Your task to perform on an android device: Clear the shopping cart on ebay. Add razer thresher to the cart on ebay, then select checkout. Image 0: 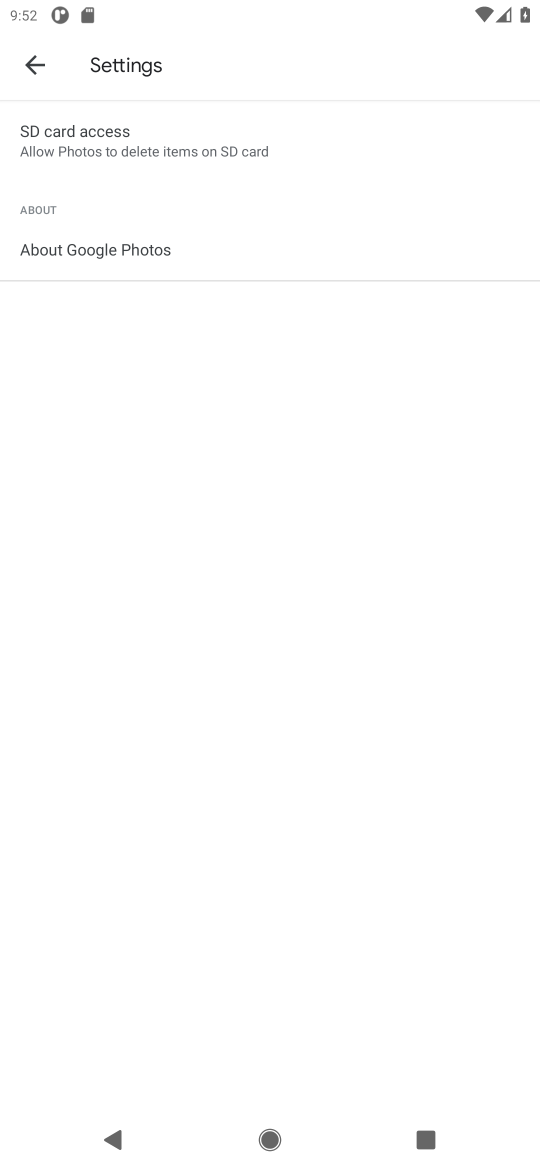
Step 0: press home button
Your task to perform on an android device: Clear the shopping cart on ebay. Add razer thresher to the cart on ebay, then select checkout. Image 1: 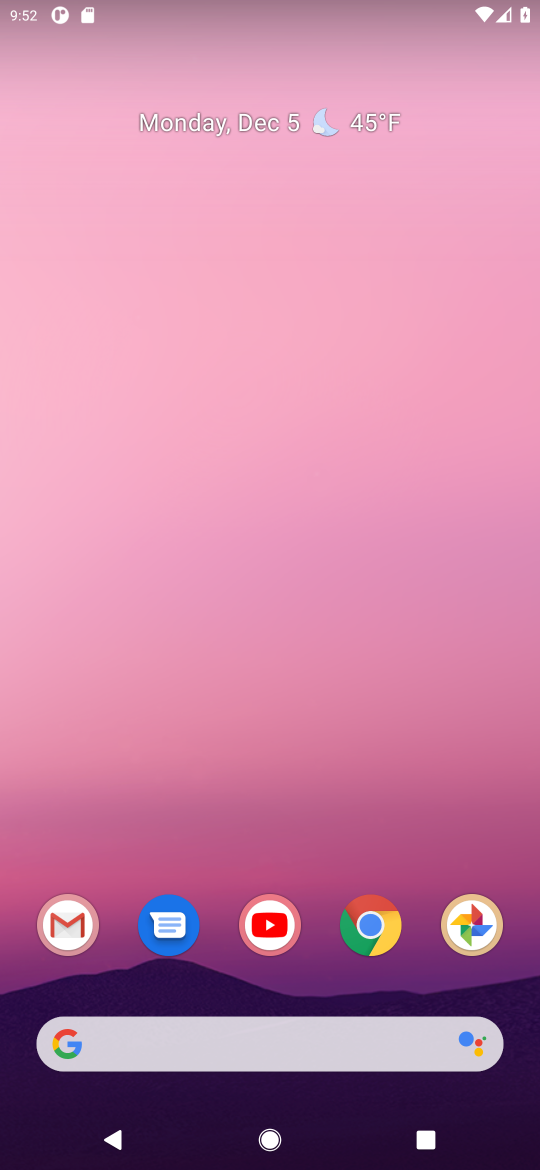
Step 1: click (375, 928)
Your task to perform on an android device: Clear the shopping cart on ebay. Add razer thresher to the cart on ebay, then select checkout. Image 2: 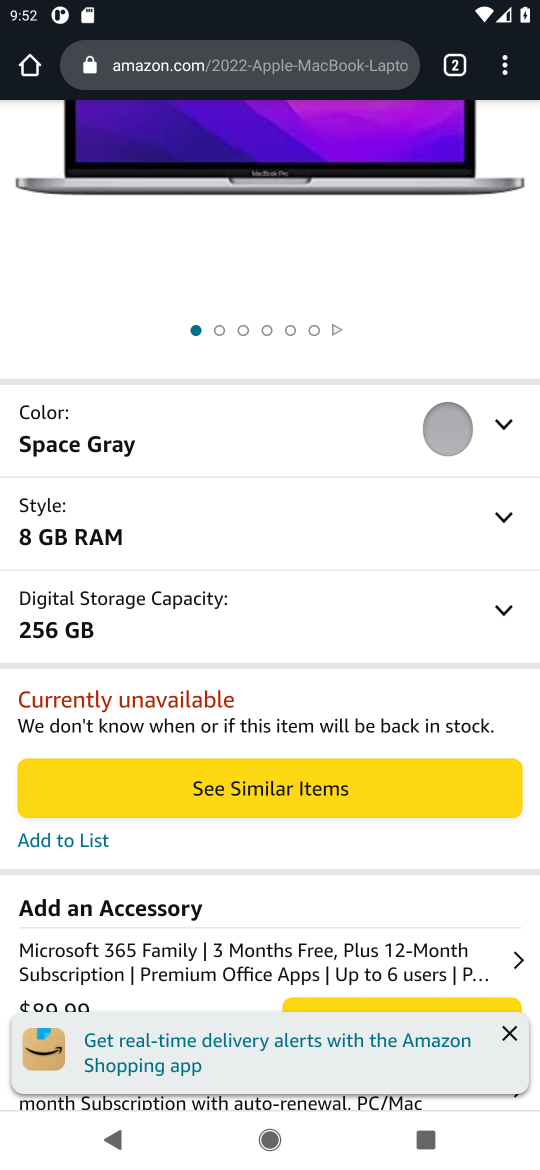
Step 2: click (180, 68)
Your task to perform on an android device: Clear the shopping cart on ebay. Add razer thresher to the cart on ebay, then select checkout. Image 3: 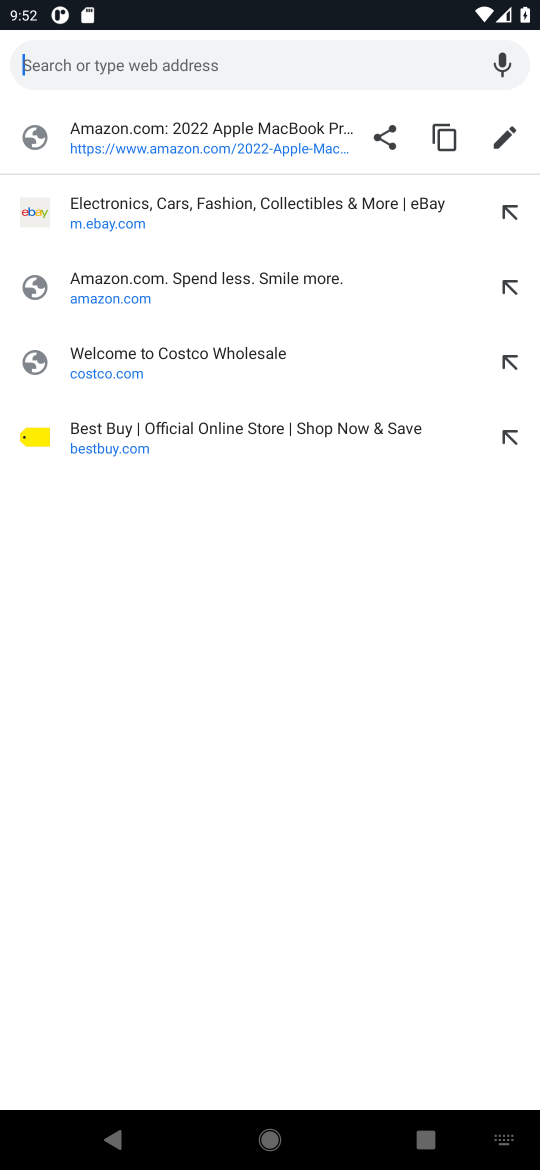
Step 3: click (112, 206)
Your task to perform on an android device: Clear the shopping cart on ebay. Add razer thresher to the cart on ebay, then select checkout. Image 4: 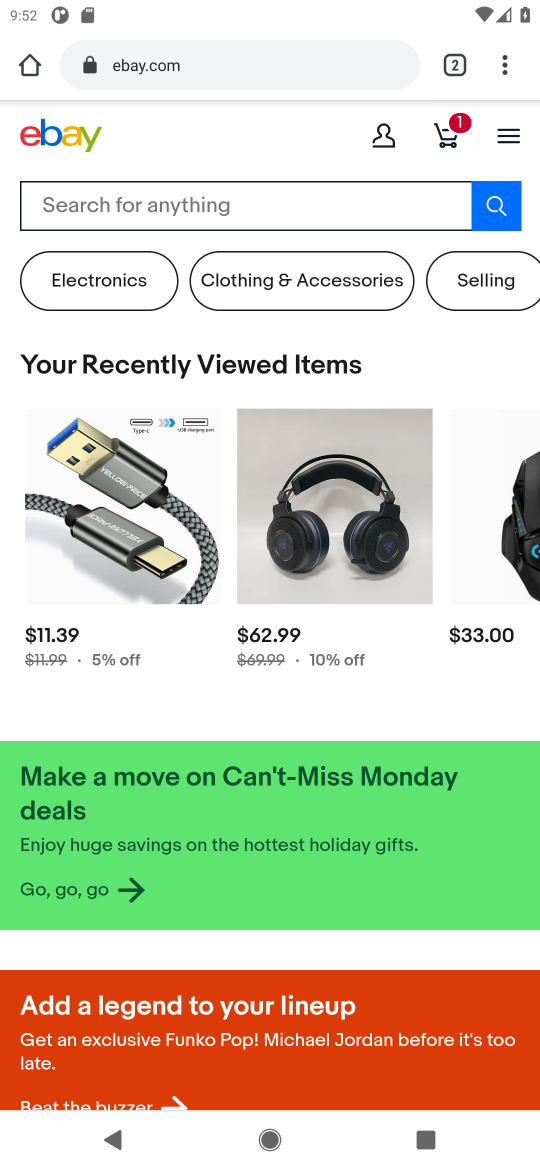
Step 4: click (447, 139)
Your task to perform on an android device: Clear the shopping cart on ebay. Add razer thresher to the cart on ebay, then select checkout. Image 5: 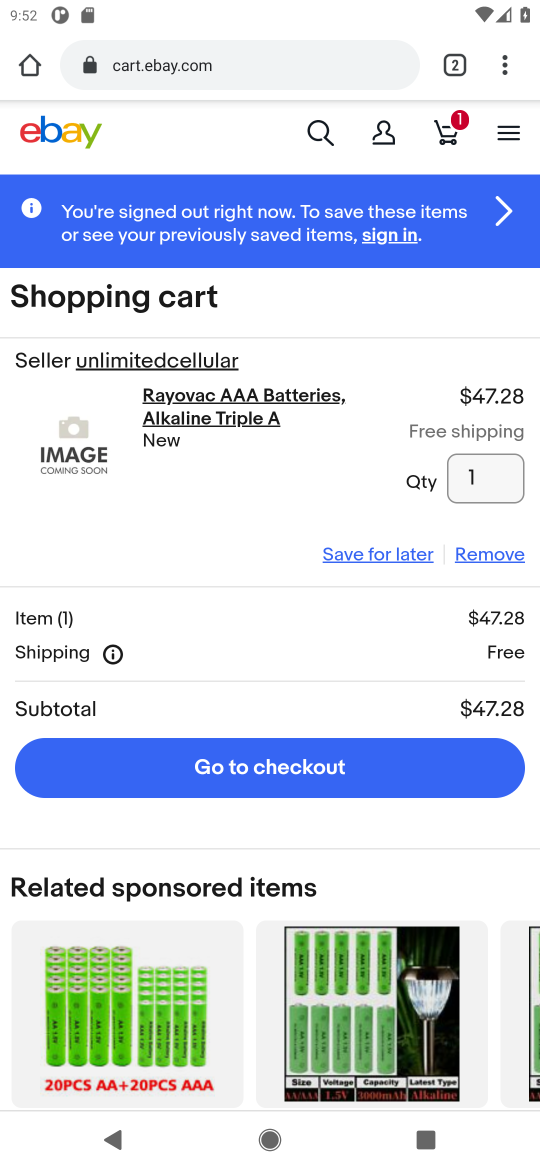
Step 5: click (472, 557)
Your task to perform on an android device: Clear the shopping cart on ebay. Add razer thresher to the cart on ebay, then select checkout. Image 6: 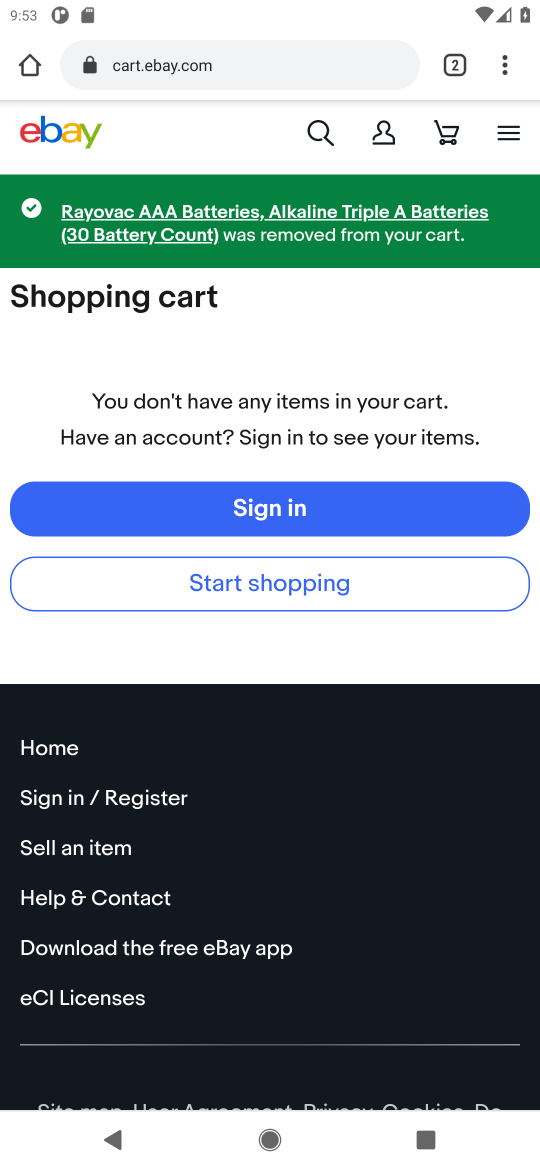
Step 6: click (330, 143)
Your task to perform on an android device: Clear the shopping cart on ebay. Add razer thresher to the cart on ebay, then select checkout. Image 7: 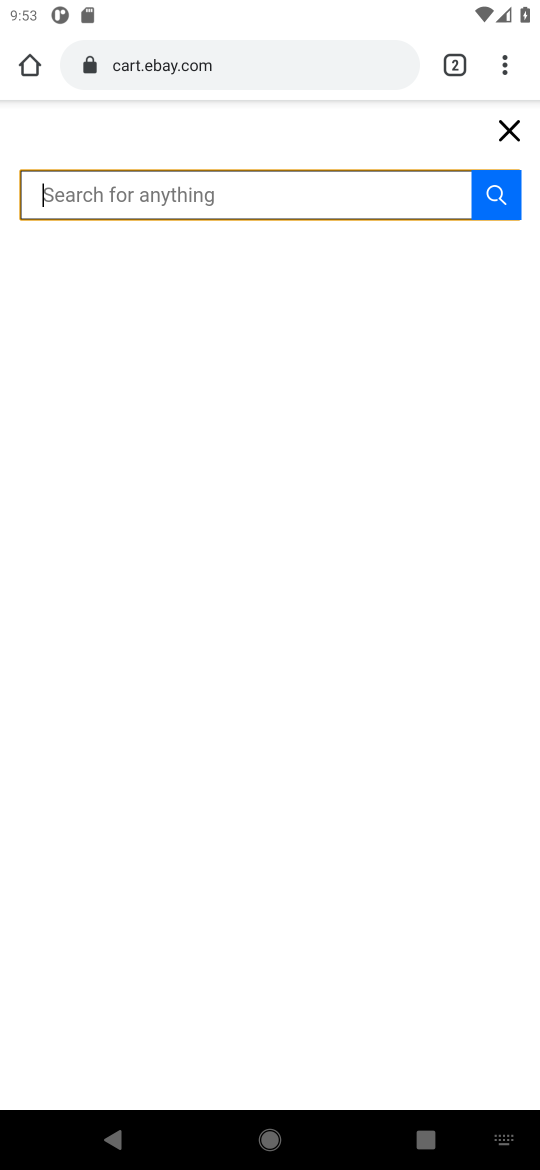
Step 7: type " razer thresher"
Your task to perform on an android device: Clear the shopping cart on ebay. Add razer thresher to the cart on ebay, then select checkout. Image 8: 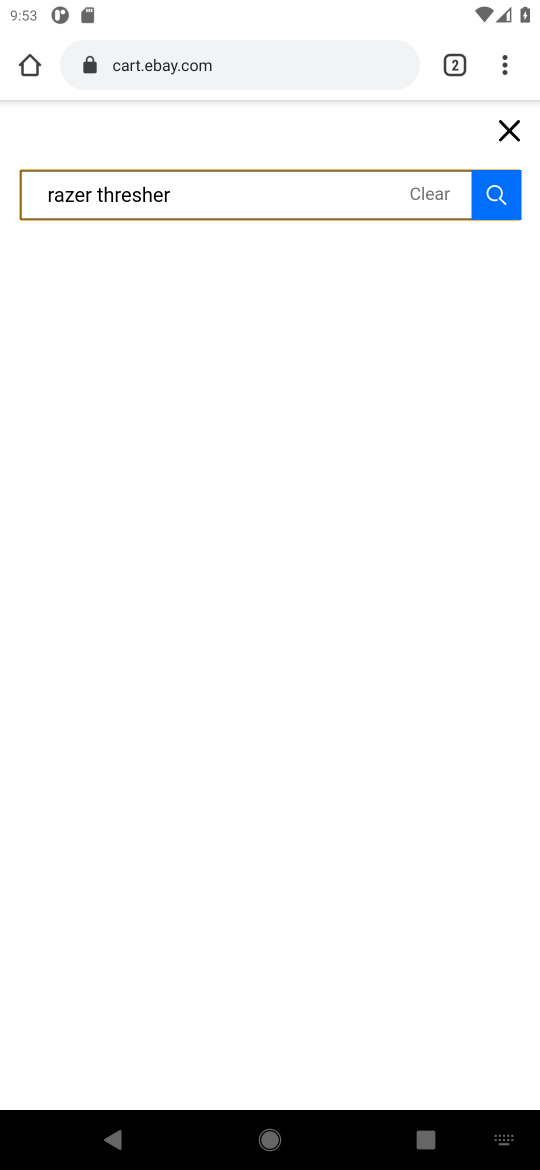
Step 8: click (490, 189)
Your task to perform on an android device: Clear the shopping cart on ebay. Add razer thresher to the cart on ebay, then select checkout. Image 9: 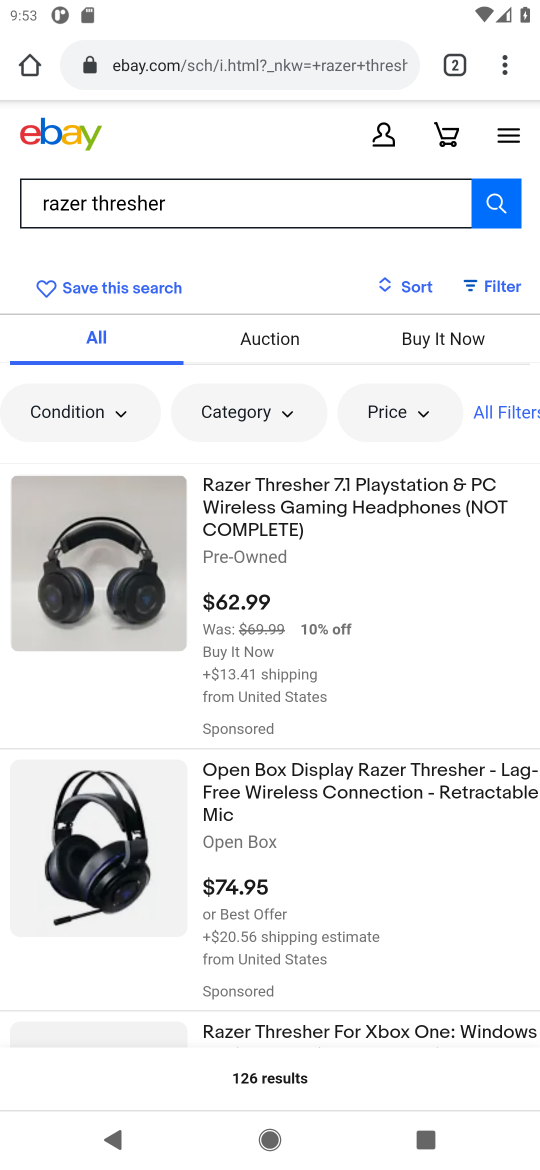
Step 9: click (222, 517)
Your task to perform on an android device: Clear the shopping cart on ebay. Add razer thresher to the cart on ebay, then select checkout. Image 10: 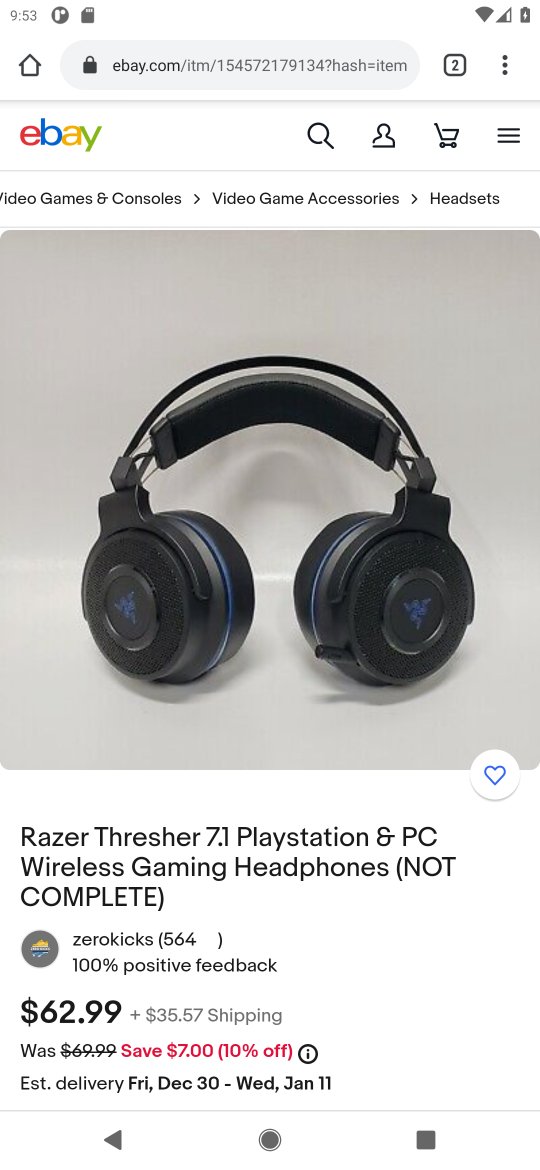
Step 10: drag from (257, 803) to (291, 248)
Your task to perform on an android device: Clear the shopping cart on ebay. Add razer thresher to the cart on ebay, then select checkout. Image 11: 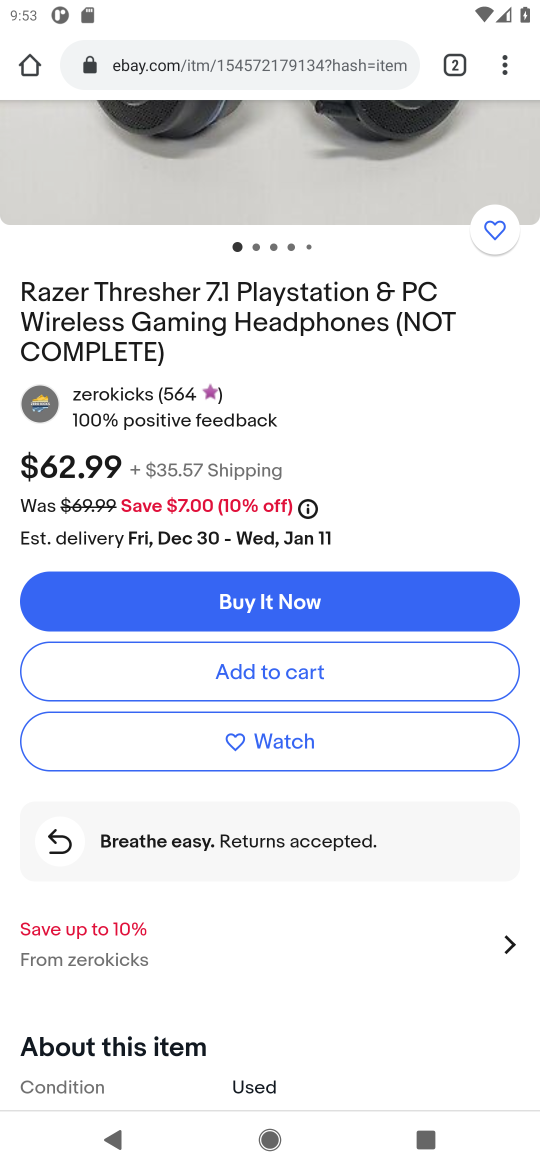
Step 11: click (272, 680)
Your task to perform on an android device: Clear the shopping cart on ebay. Add razer thresher to the cart on ebay, then select checkout. Image 12: 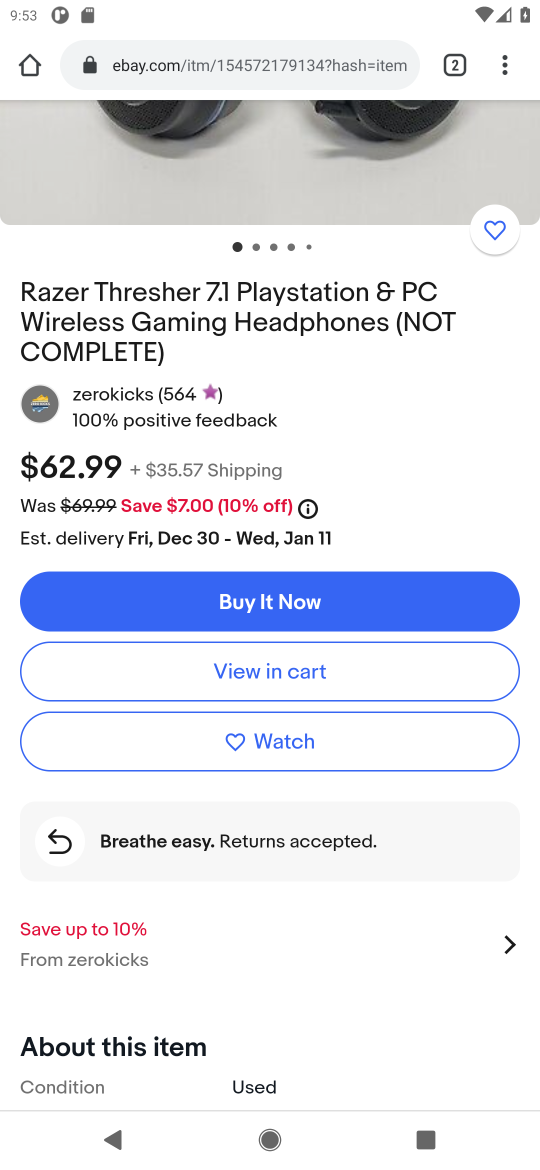
Step 12: click (272, 680)
Your task to perform on an android device: Clear the shopping cart on ebay. Add razer thresher to the cart on ebay, then select checkout. Image 13: 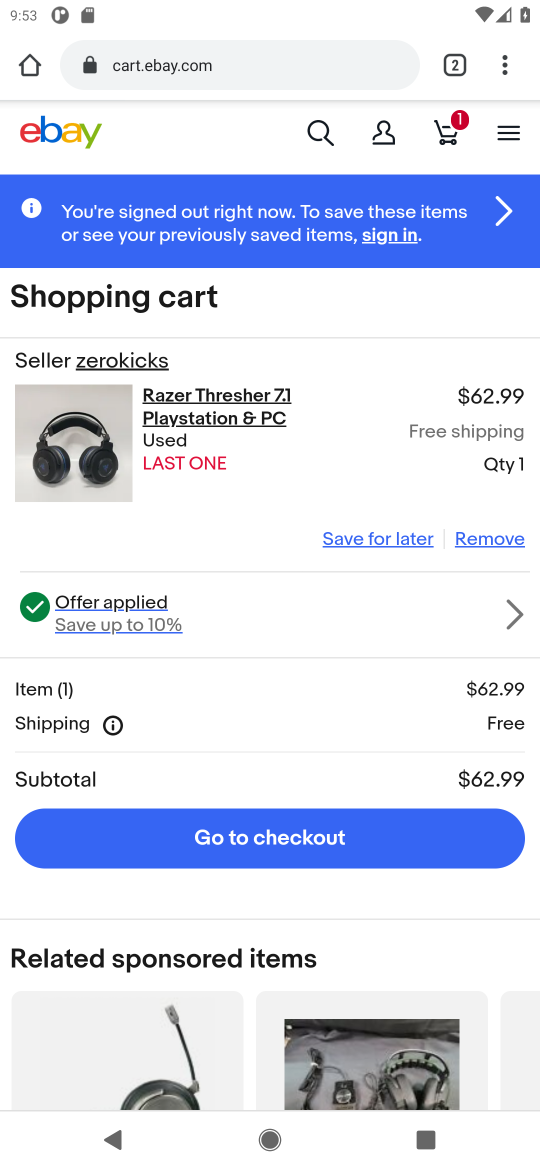
Step 13: click (235, 838)
Your task to perform on an android device: Clear the shopping cart on ebay. Add razer thresher to the cart on ebay, then select checkout. Image 14: 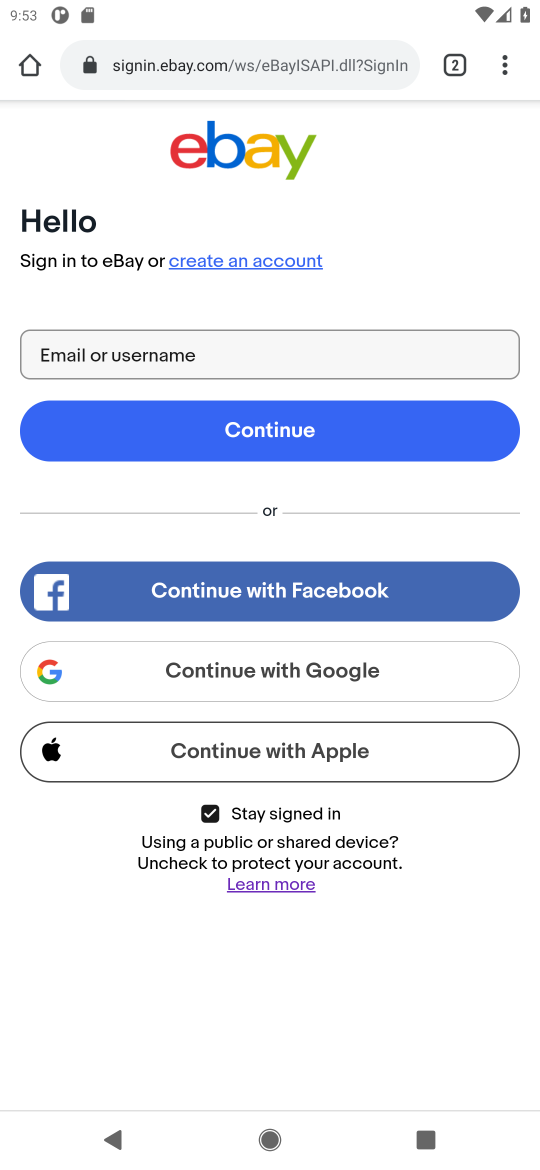
Step 14: task complete